Your task to perform on an android device: Open CNN.com Image 0: 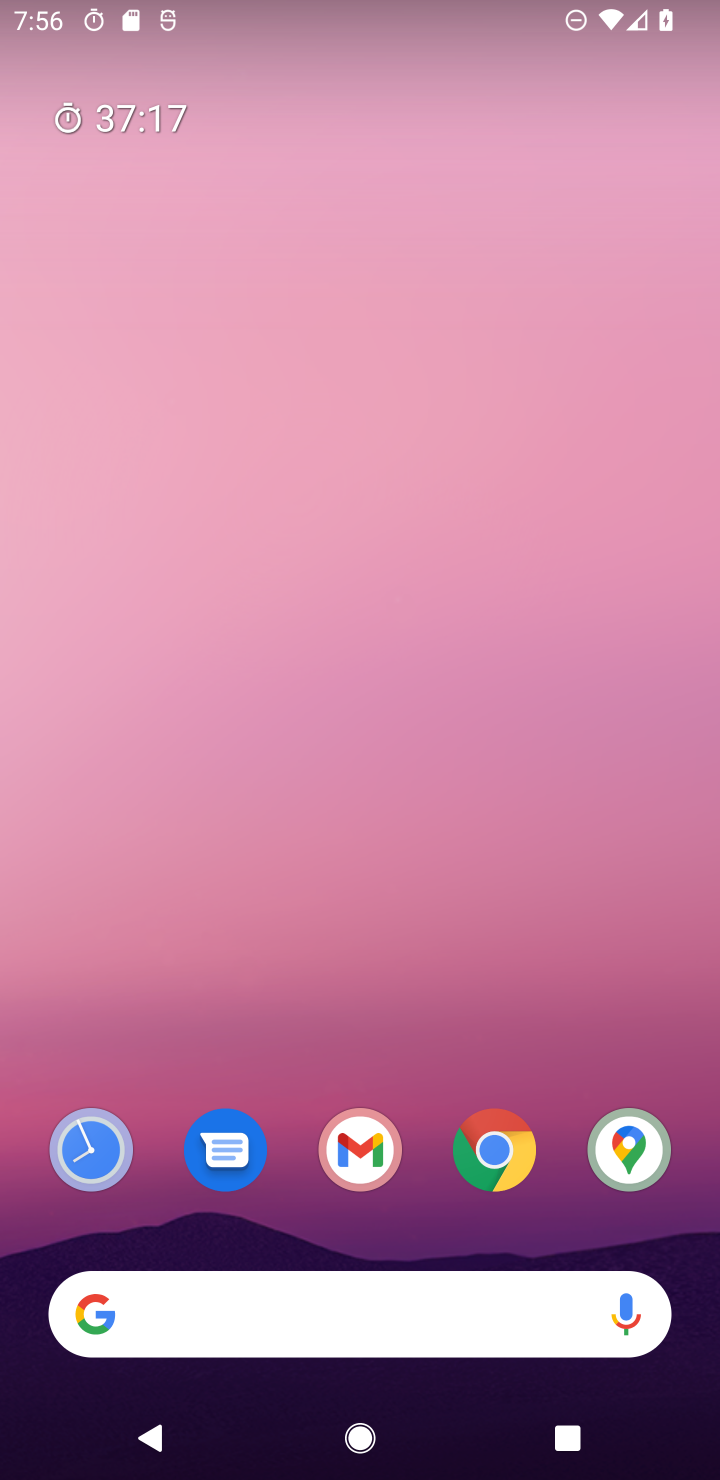
Step 0: drag from (321, 1308) to (335, 100)
Your task to perform on an android device: Open CNN.com Image 1: 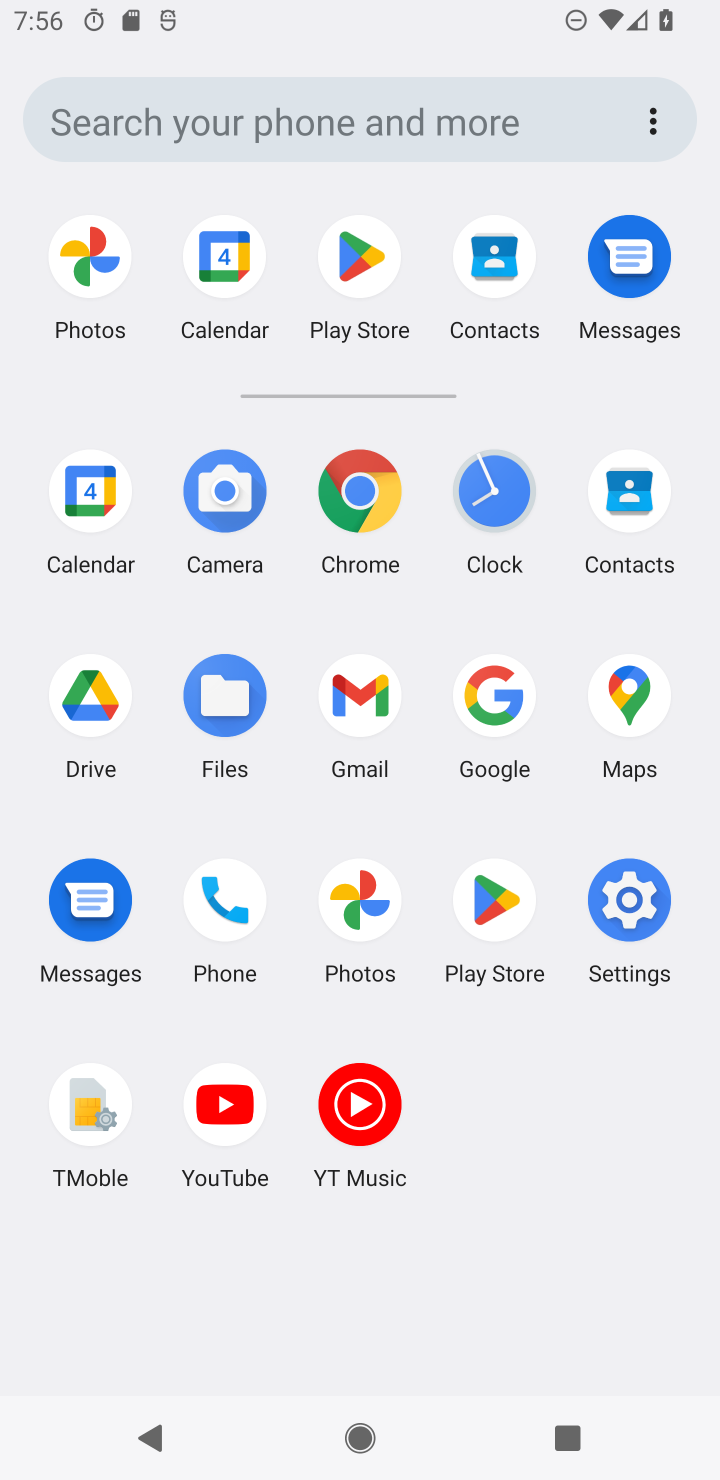
Step 1: click (338, 471)
Your task to perform on an android device: Open CNN.com Image 2: 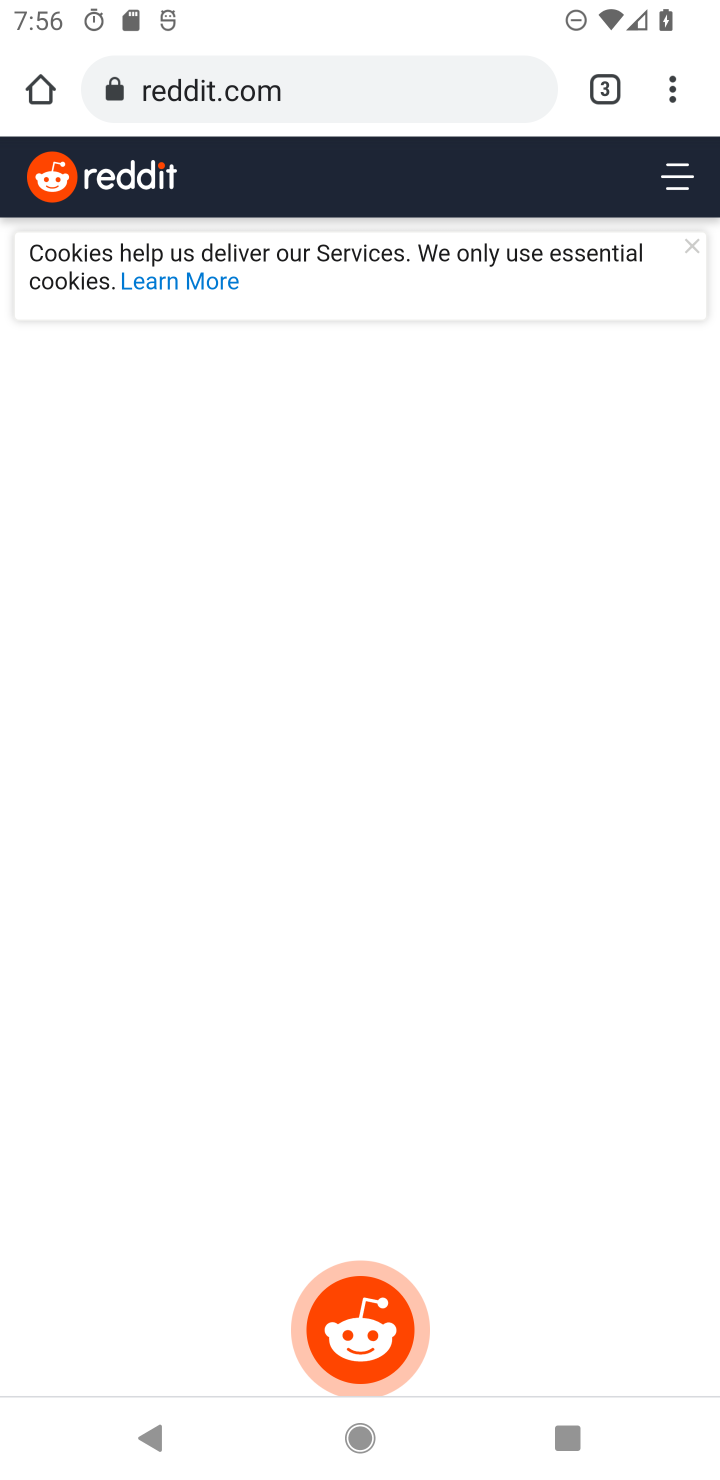
Step 2: click (279, 79)
Your task to perform on an android device: Open CNN.com Image 3: 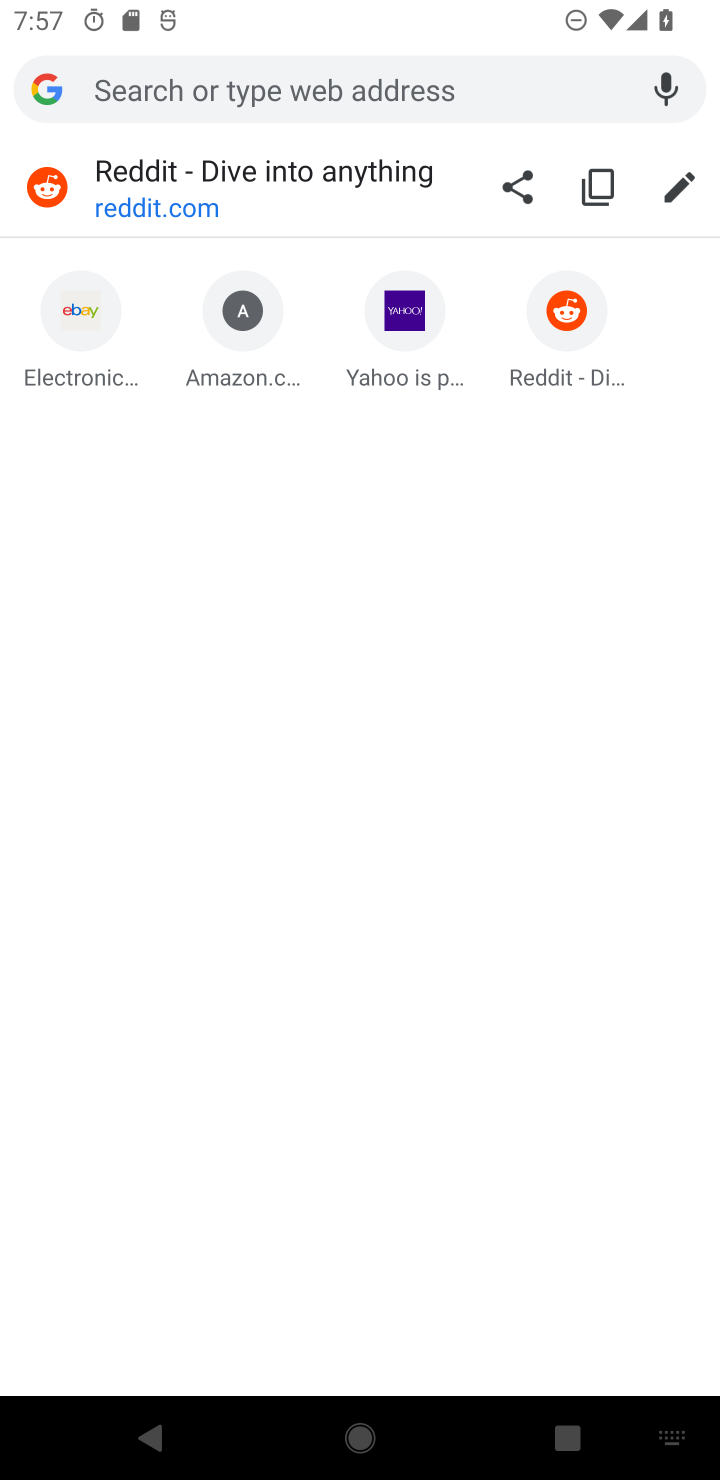
Step 3: type "cnn.com"
Your task to perform on an android device: Open CNN.com Image 4: 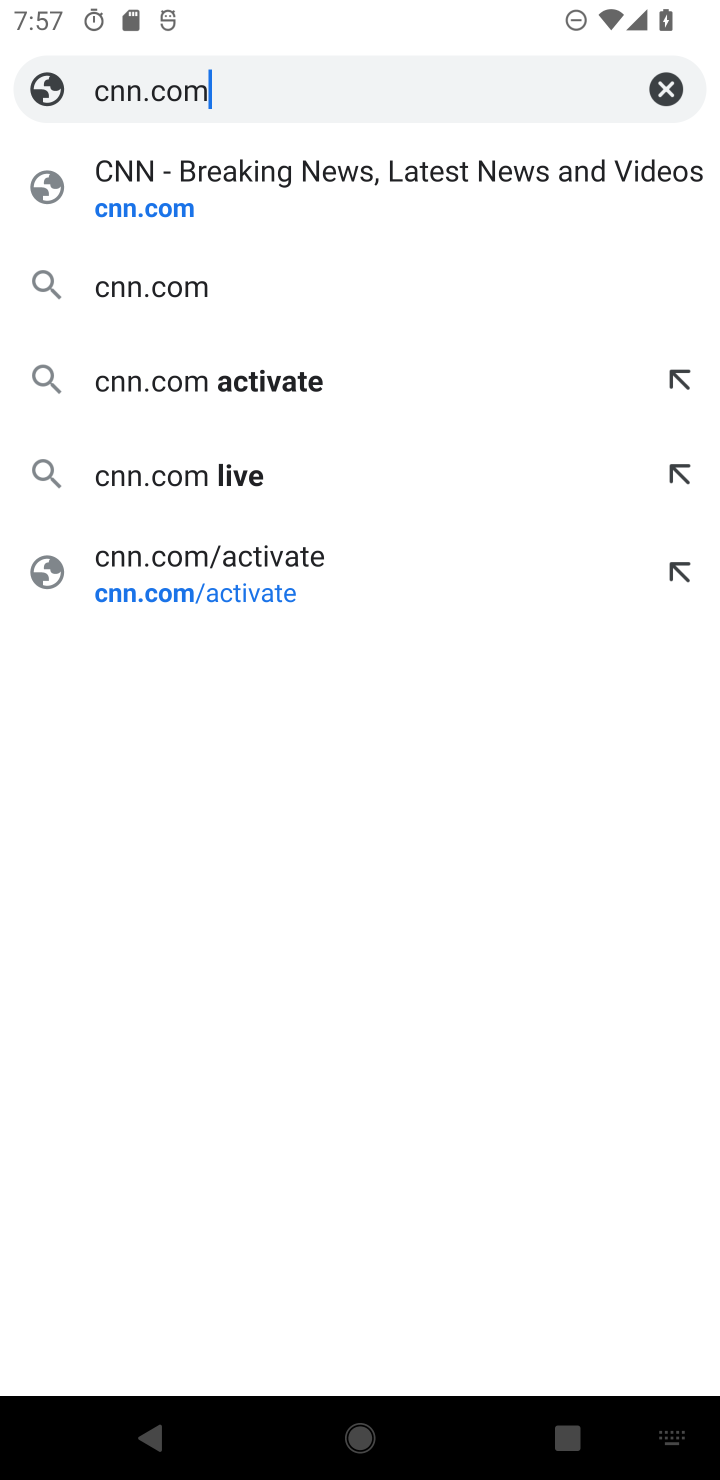
Step 4: click (126, 181)
Your task to perform on an android device: Open CNN.com Image 5: 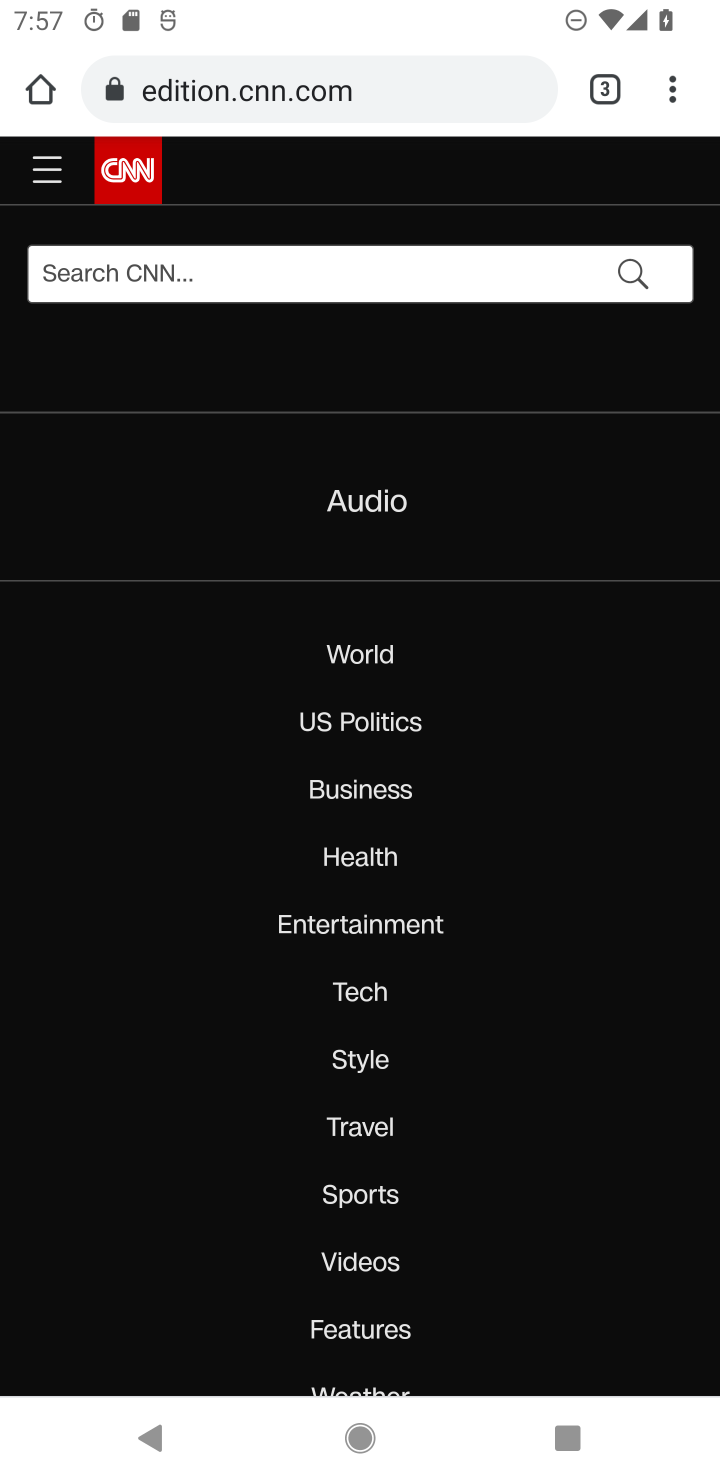
Step 5: task complete